Your task to perform on an android device: What's the news in Ecuador? Image 0: 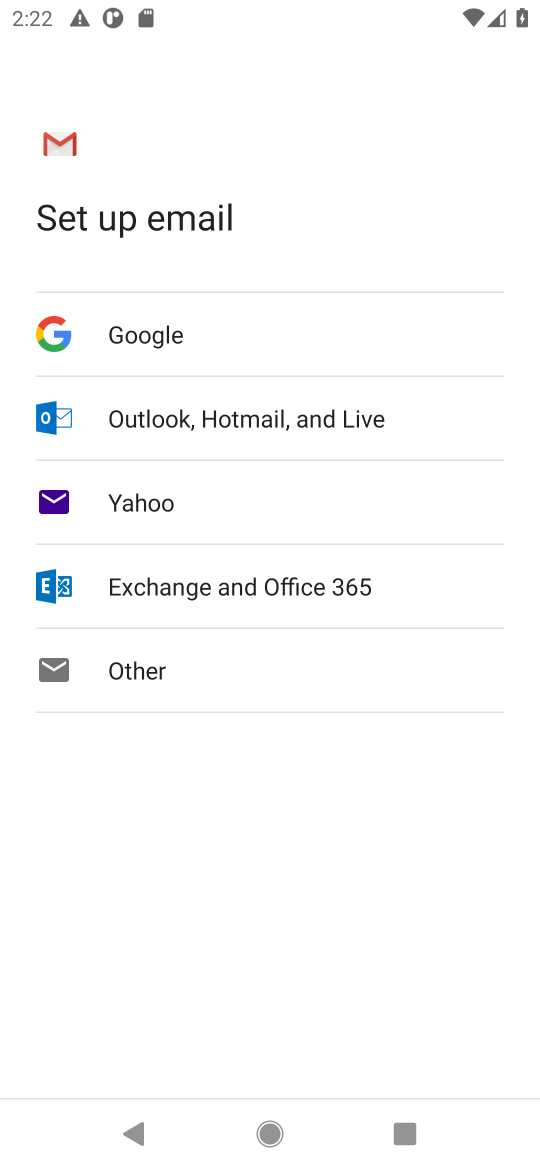
Step 0: press home button
Your task to perform on an android device: What's the news in Ecuador? Image 1: 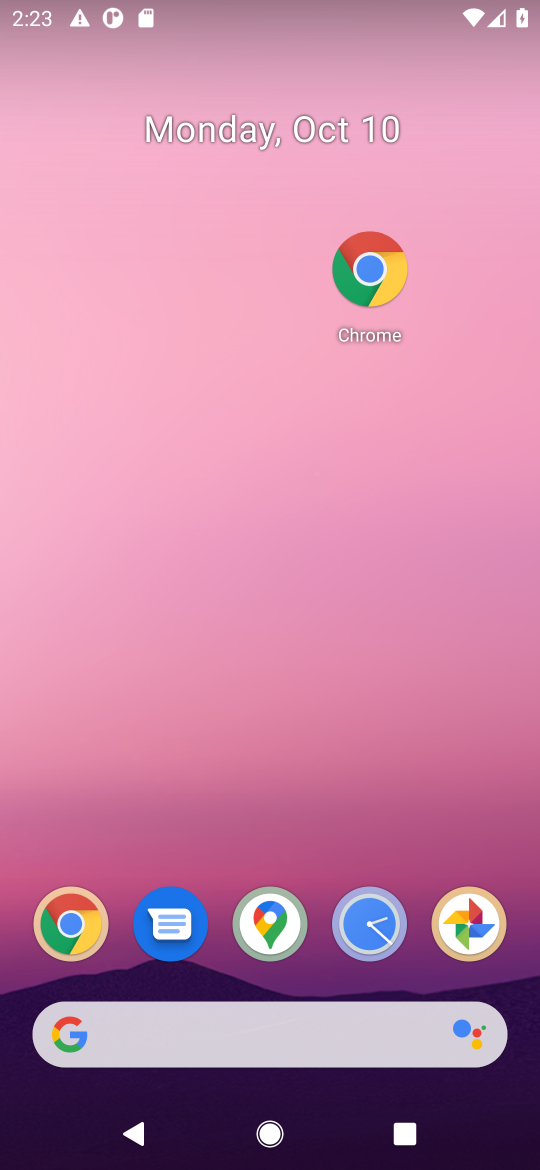
Step 1: drag from (221, 832) to (84, 5)
Your task to perform on an android device: What's the news in Ecuador? Image 2: 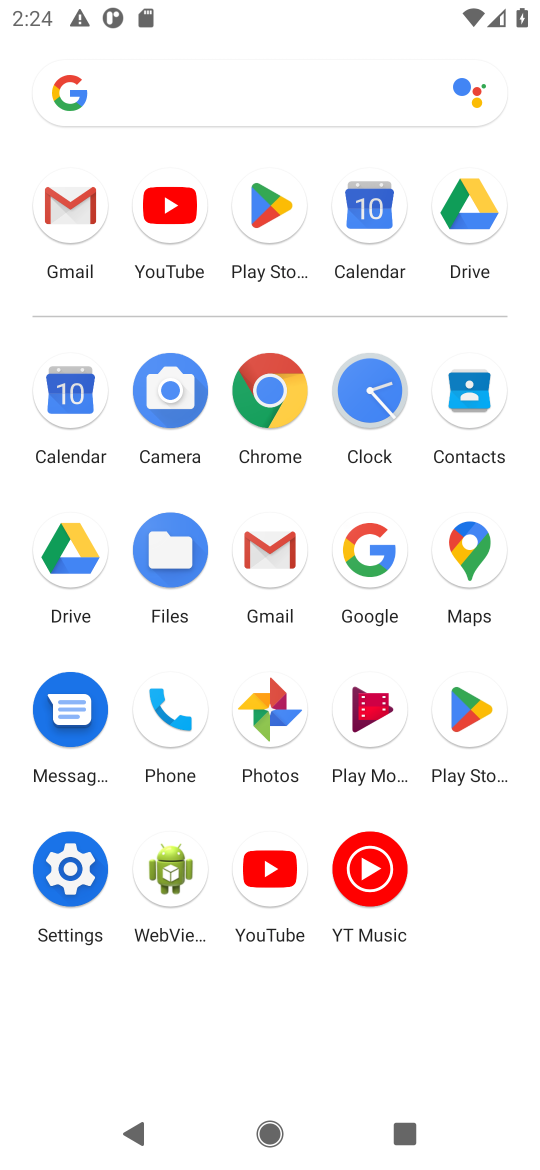
Step 2: click (259, 384)
Your task to perform on an android device: What's the news in Ecuador? Image 3: 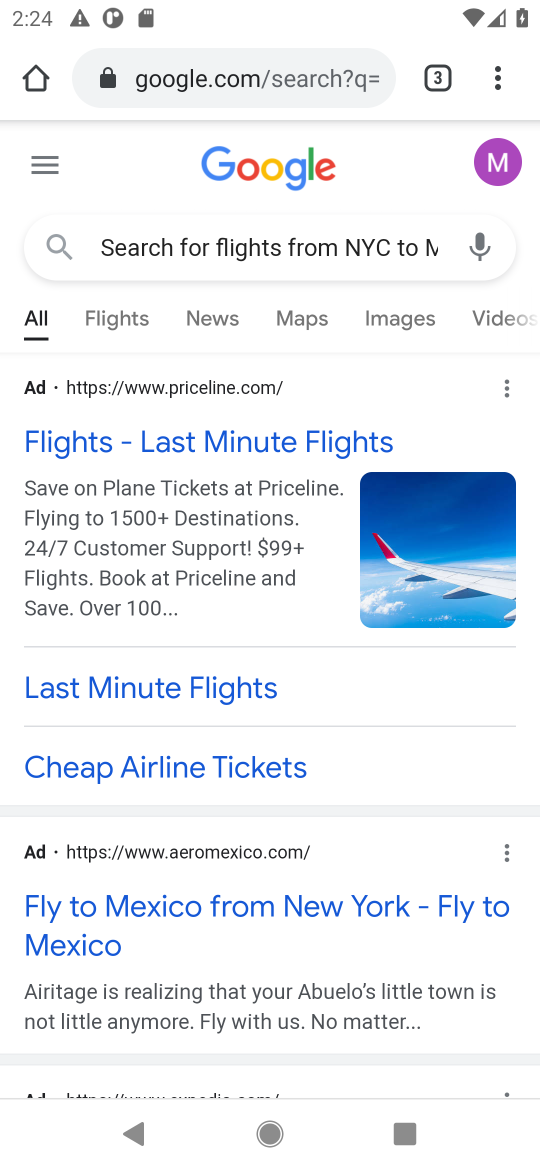
Step 3: click (200, 83)
Your task to perform on an android device: What's the news in Ecuador? Image 4: 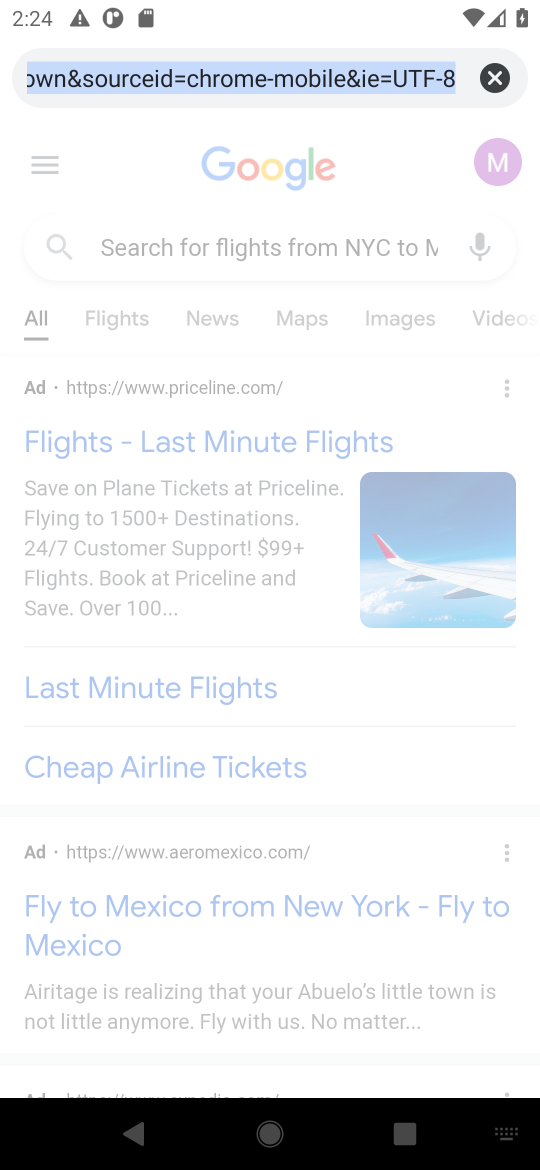
Step 4: click (485, 73)
Your task to perform on an android device: What's the news in Ecuador? Image 5: 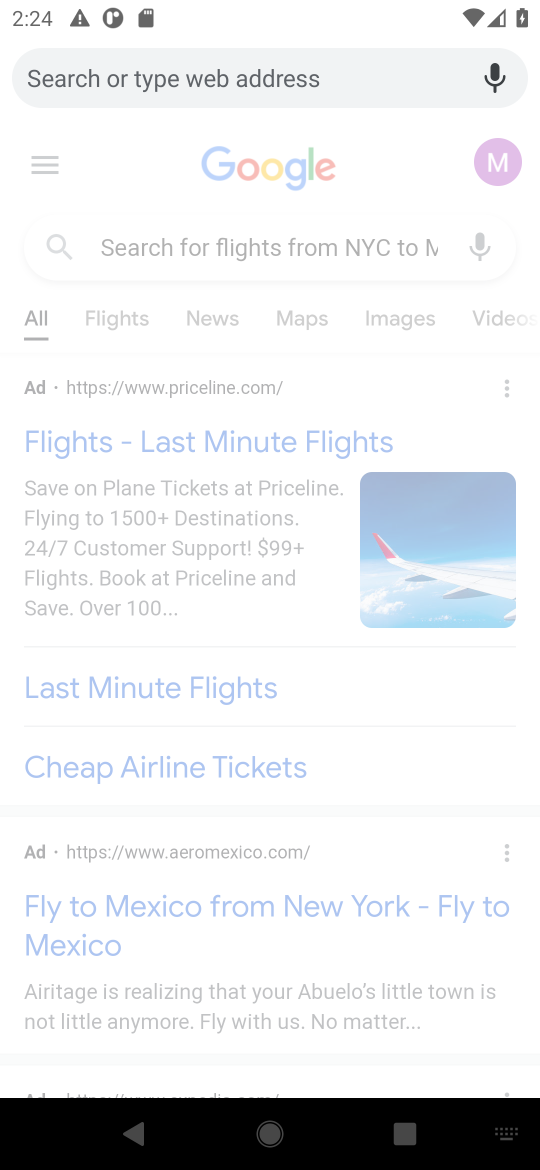
Step 5: type "What's the news in Ecuador?"
Your task to perform on an android device: What's the news in Ecuador? Image 6: 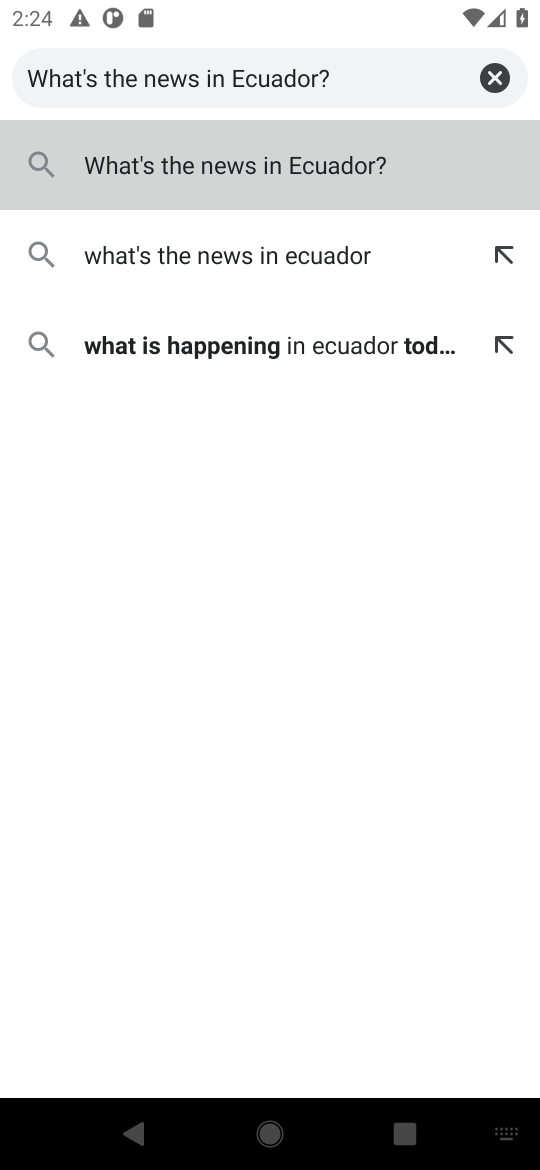
Step 6: click (294, 148)
Your task to perform on an android device: What's the news in Ecuador? Image 7: 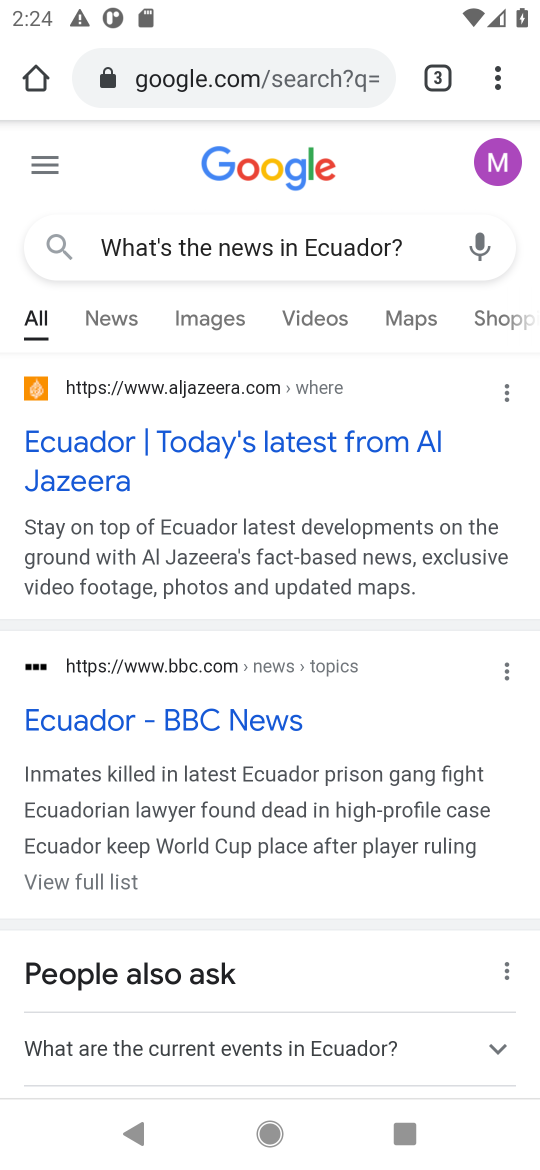
Step 7: task complete